Your task to perform on an android device: Open internet settings Image 0: 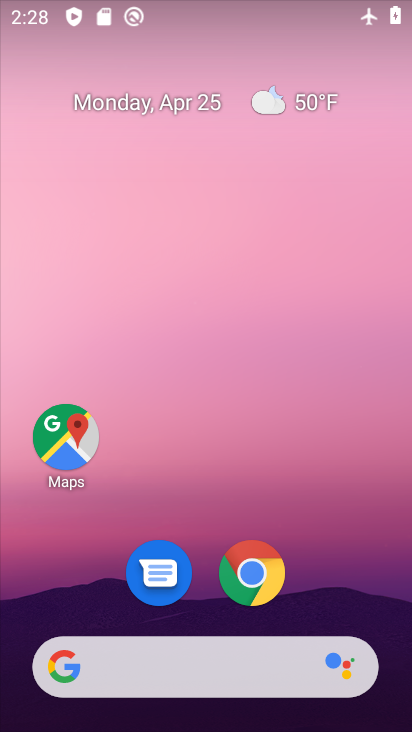
Step 0: drag from (353, 589) to (327, 36)
Your task to perform on an android device: Open internet settings Image 1: 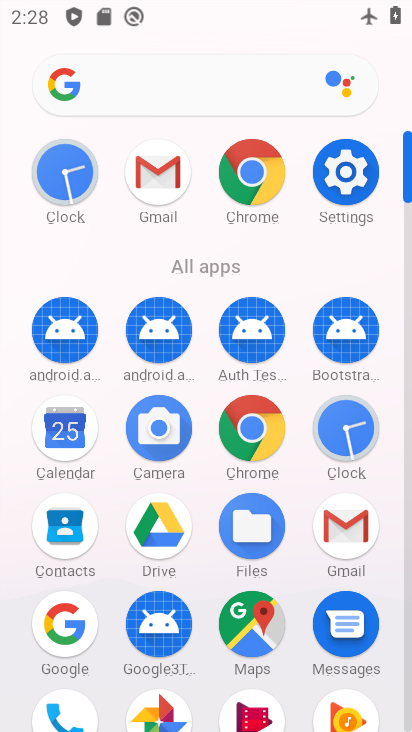
Step 1: click (336, 171)
Your task to perform on an android device: Open internet settings Image 2: 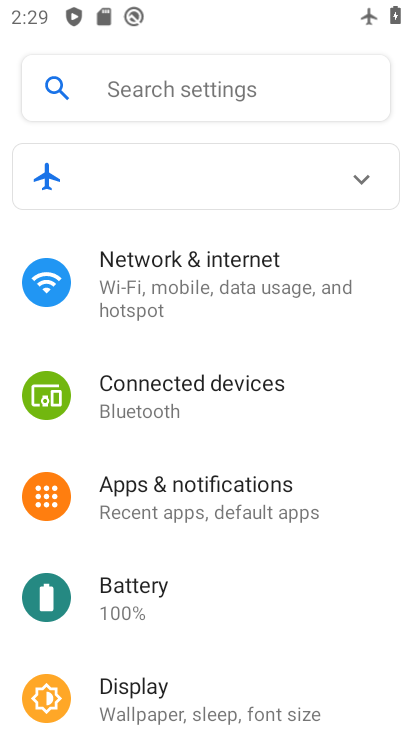
Step 2: click (168, 263)
Your task to perform on an android device: Open internet settings Image 3: 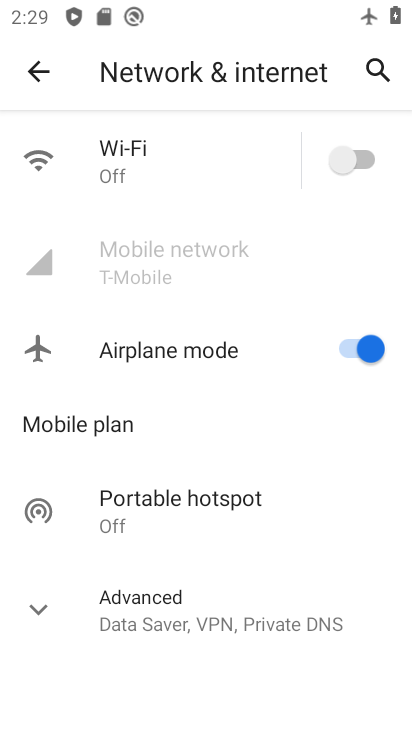
Step 3: click (207, 254)
Your task to perform on an android device: Open internet settings Image 4: 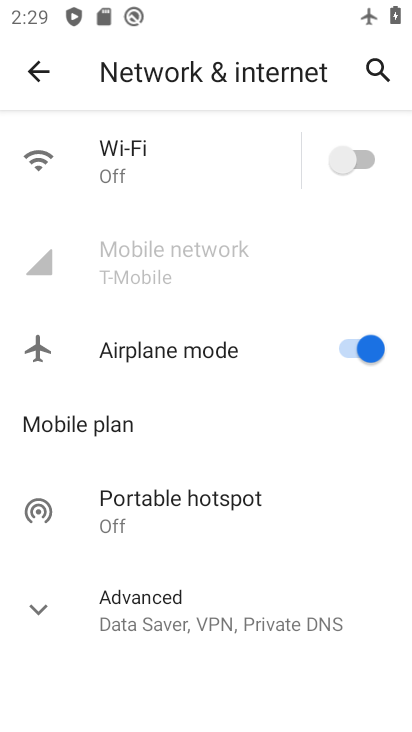
Step 4: task complete